Your task to perform on an android device: Go to Yahoo.com Image 0: 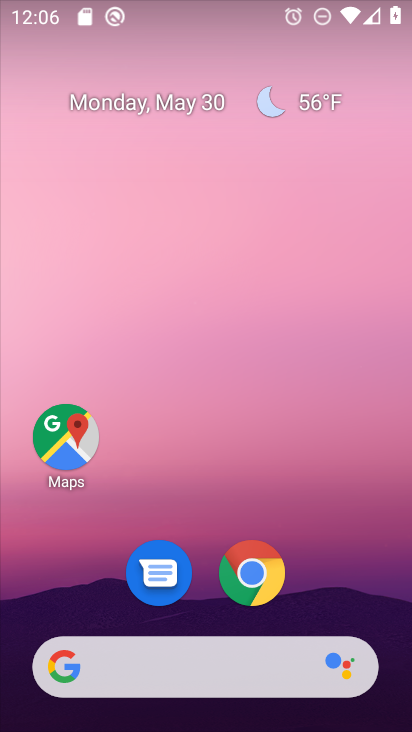
Step 0: drag from (264, 511) to (303, 5)
Your task to perform on an android device: Go to Yahoo.com Image 1: 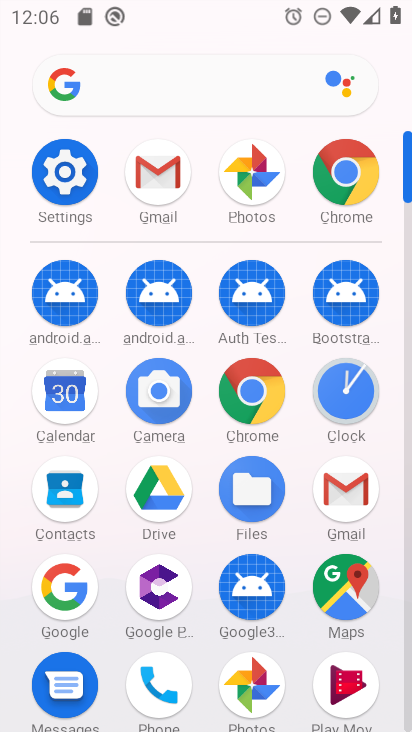
Step 1: click (267, 394)
Your task to perform on an android device: Go to Yahoo.com Image 2: 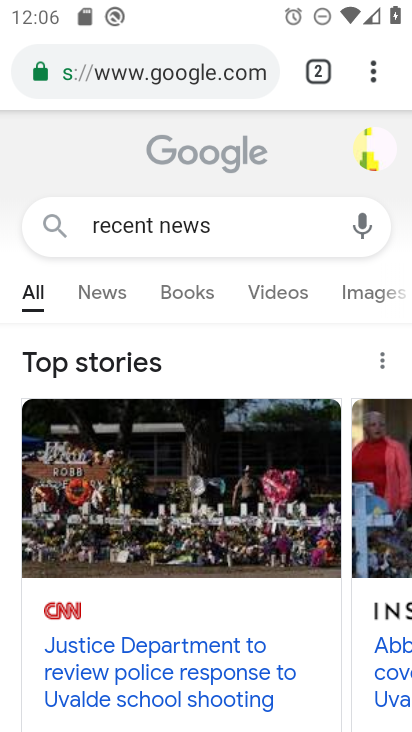
Step 2: click (250, 67)
Your task to perform on an android device: Go to Yahoo.com Image 3: 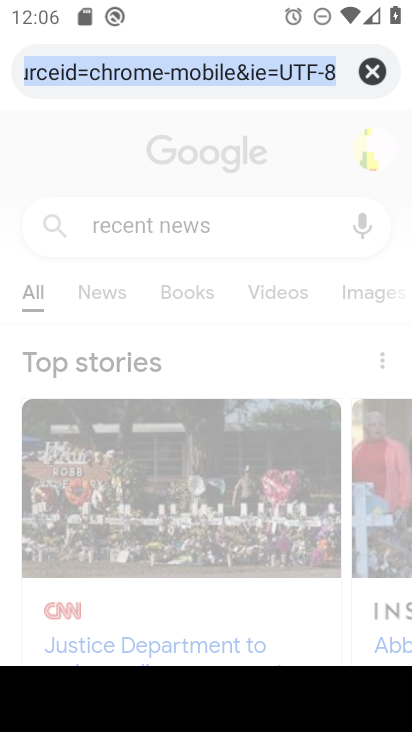
Step 3: type "yahoo.com"
Your task to perform on an android device: Go to Yahoo.com Image 4: 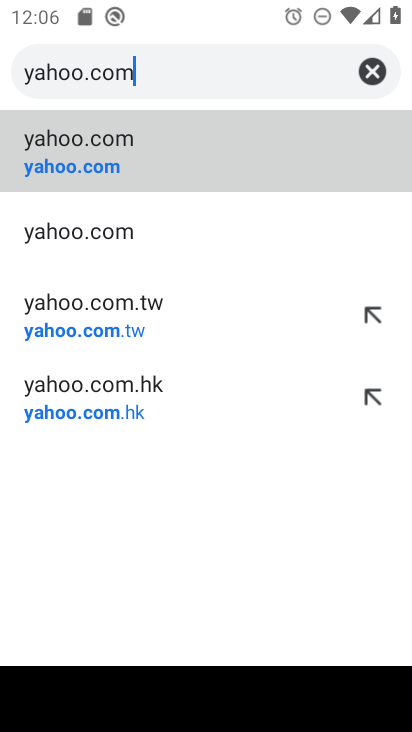
Step 4: click (142, 148)
Your task to perform on an android device: Go to Yahoo.com Image 5: 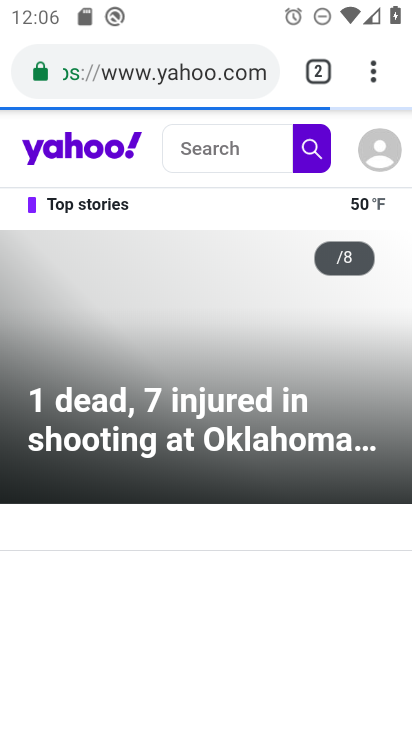
Step 5: task complete